Your task to perform on an android device: move an email to a new category in the gmail app Image 0: 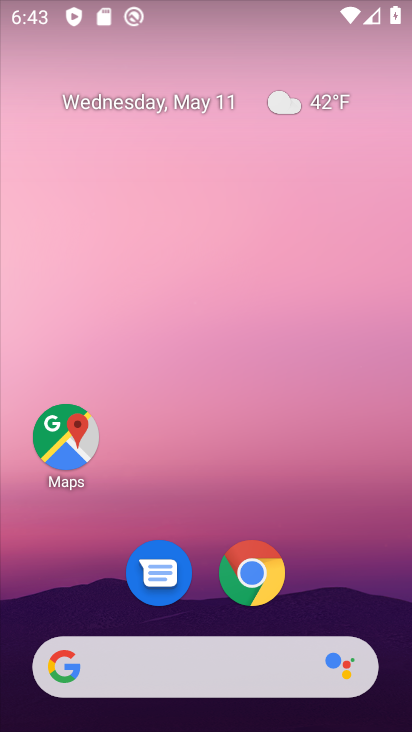
Step 0: drag from (312, 601) to (280, 231)
Your task to perform on an android device: move an email to a new category in the gmail app Image 1: 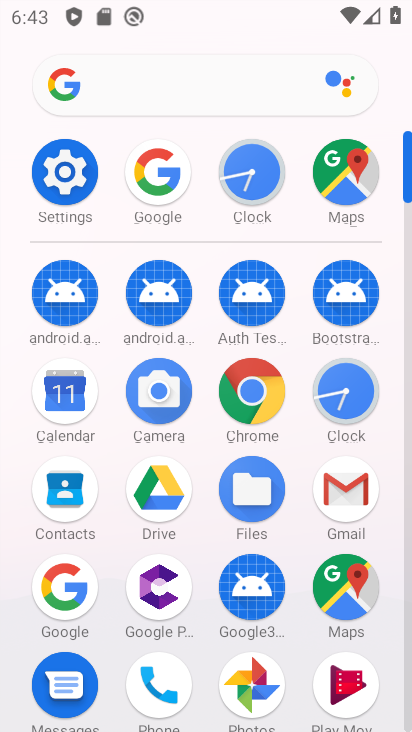
Step 1: click (346, 522)
Your task to perform on an android device: move an email to a new category in the gmail app Image 2: 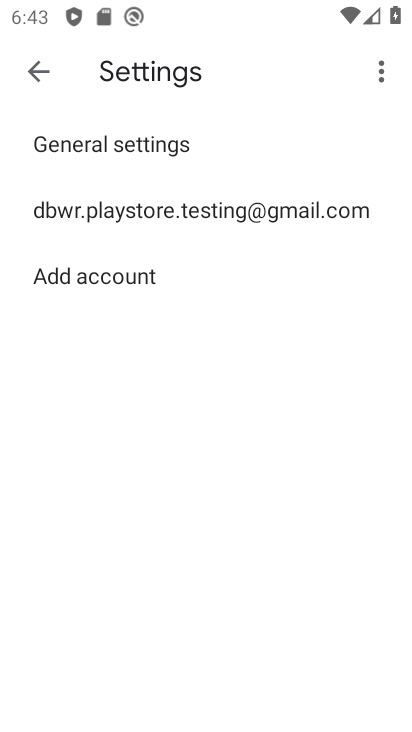
Step 2: click (240, 218)
Your task to perform on an android device: move an email to a new category in the gmail app Image 3: 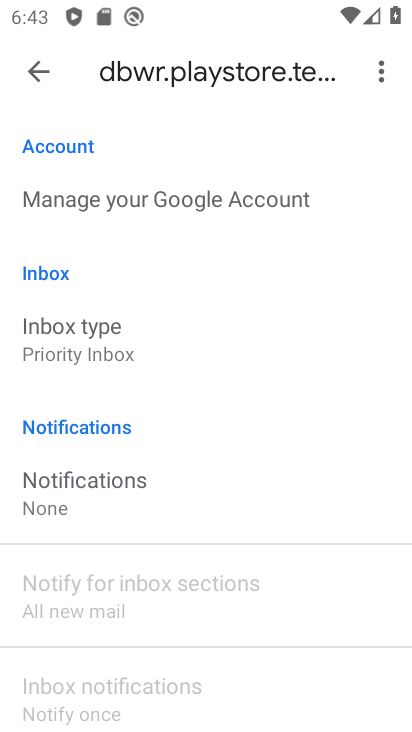
Step 3: click (32, 82)
Your task to perform on an android device: move an email to a new category in the gmail app Image 4: 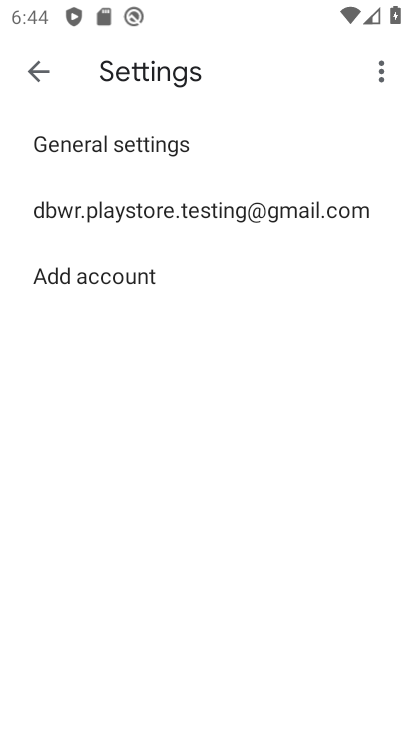
Step 4: click (32, 82)
Your task to perform on an android device: move an email to a new category in the gmail app Image 5: 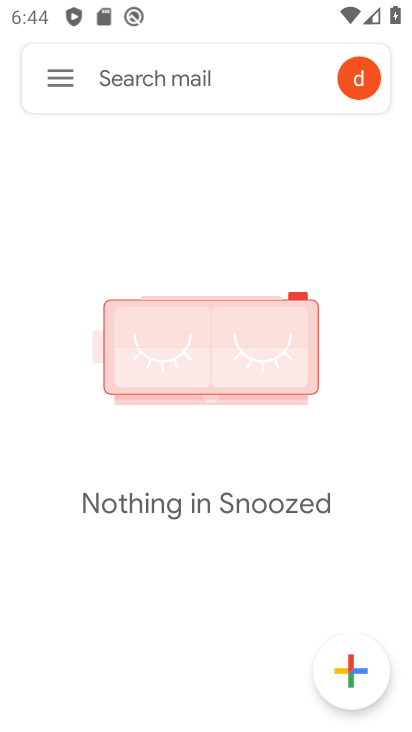
Step 5: click (62, 86)
Your task to perform on an android device: move an email to a new category in the gmail app Image 6: 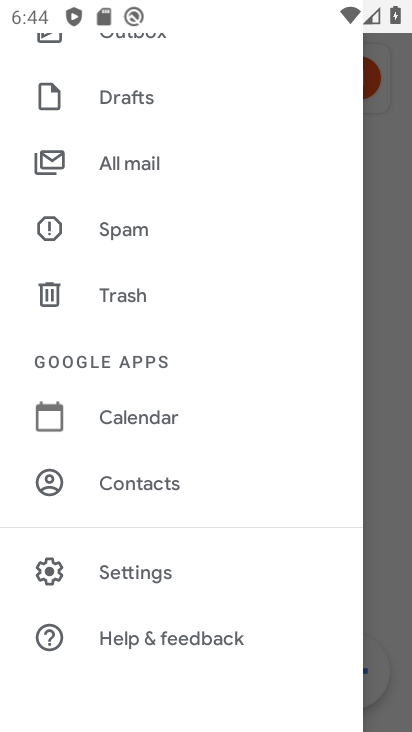
Step 6: click (123, 172)
Your task to perform on an android device: move an email to a new category in the gmail app Image 7: 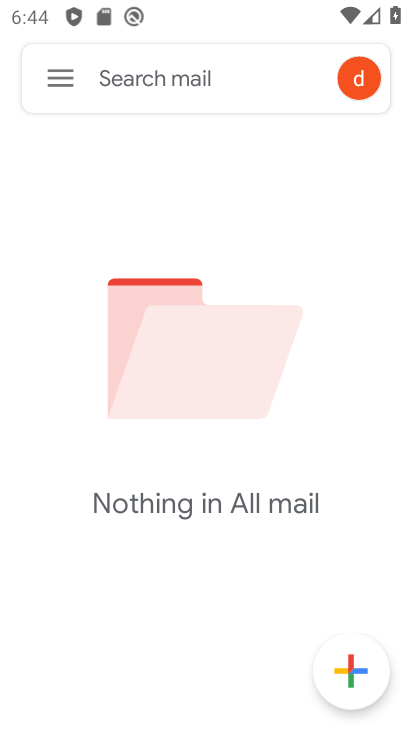
Step 7: task complete